Your task to perform on an android device: turn notification dots on Image 0: 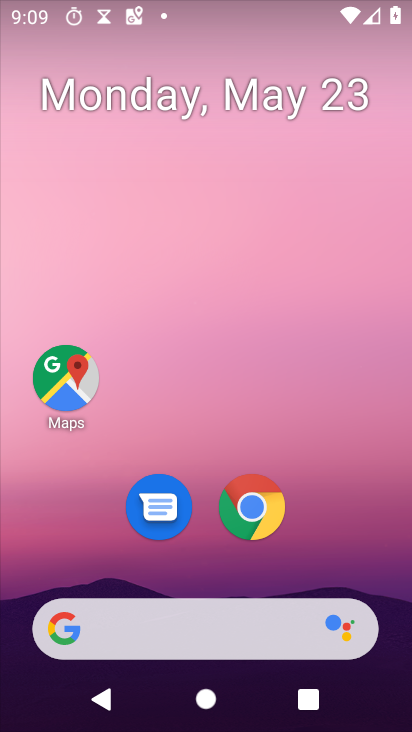
Step 0: drag from (366, 553) to (311, 3)
Your task to perform on an android device: turn notification dots on Image 1: 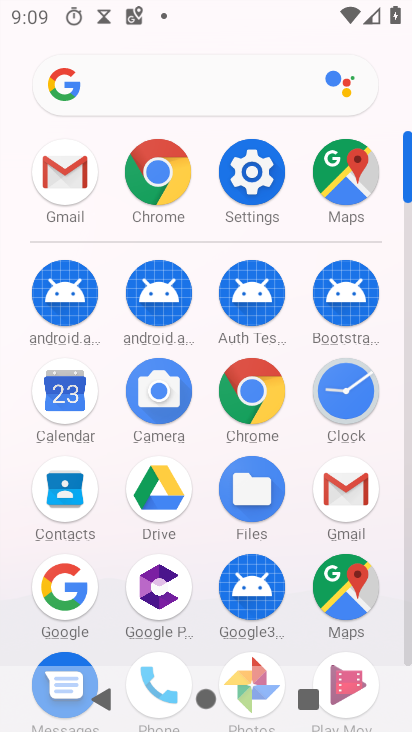
Step 1: click (259, 187)
Your task to perform on an android device: turn notification dots on Image 2: 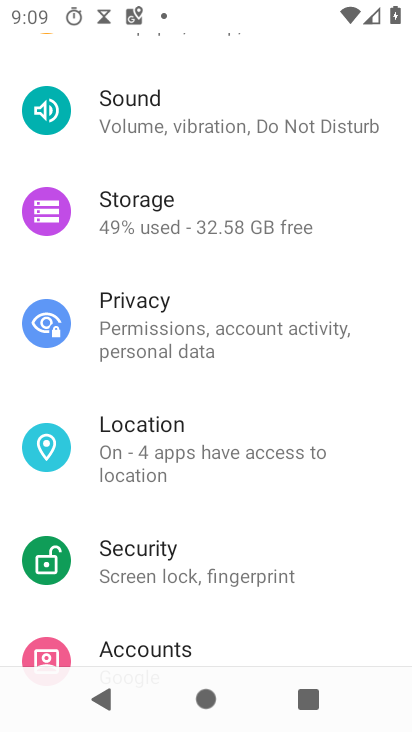
Step 2: drag from (193, 196) to (255, 586)
Your task to perform on an android device: turn notification dots on Image 3: 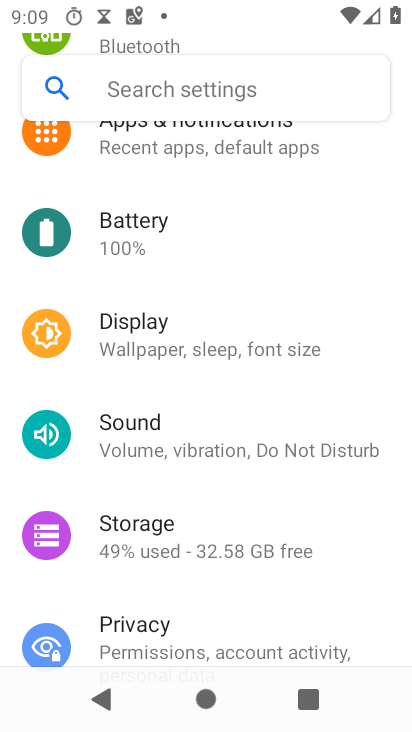
Step 3: drag from (217, 205) to (289, 615)
Your task to perform on an android device: turn notification dots on Image 4: 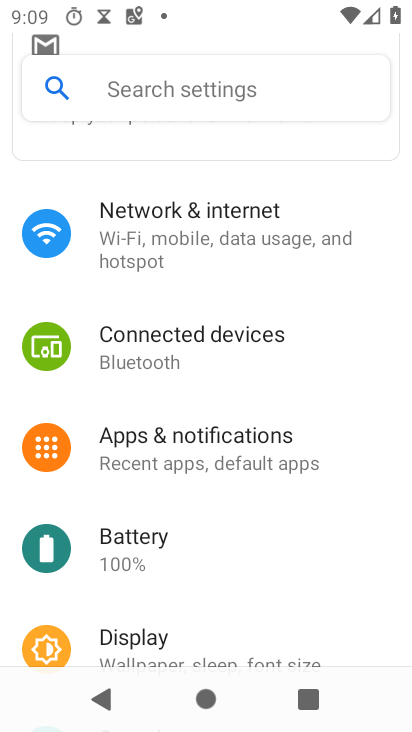
Step 4: click (226, 453)
Your task to perform on an android device: turn notification dots on Image 5: 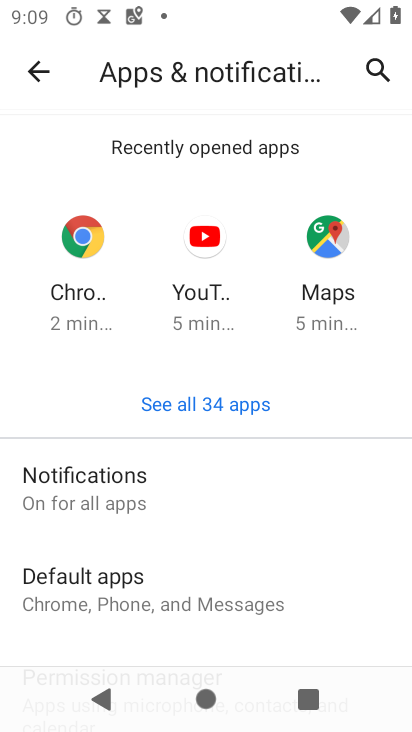
Step 5: click (87, 468)
Your task to perform on an android device: turn notification dots on Image 6: 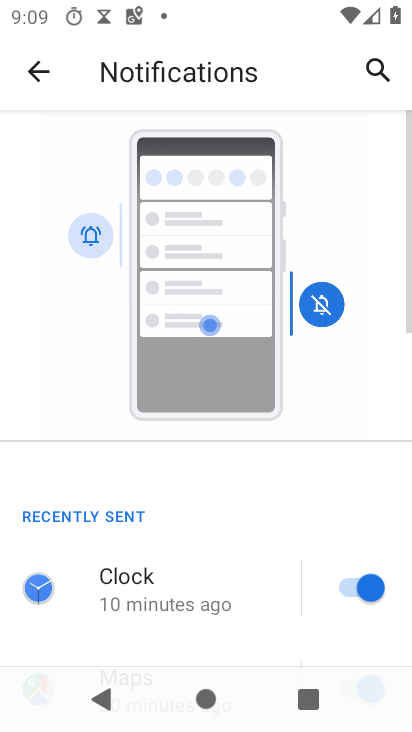
Step 6: drag from (148, 588) to (84, 132)
Your task to perform on an android device: turn notification dots on Image 7: 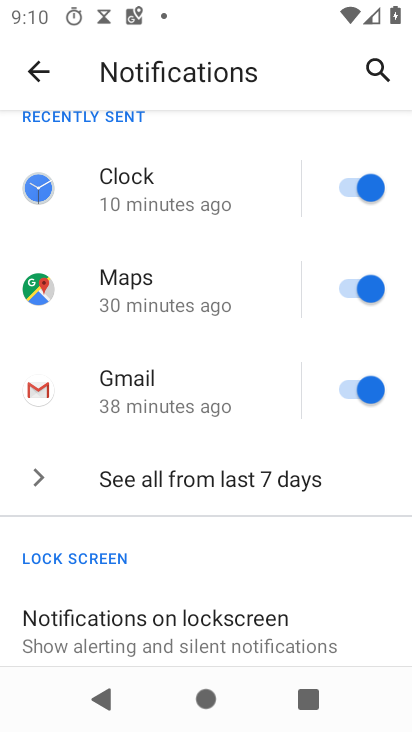
Step 7: drag from (247, 534) to (179, 140)
Your task to perform on an android device: turn notification dots on Image 8: 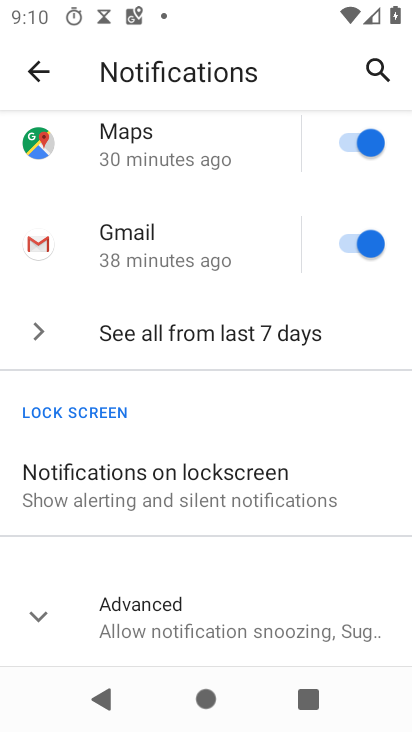
Step 8: click (179, 605)
Your task to perform on an android device: turn notification dots on Image 9: 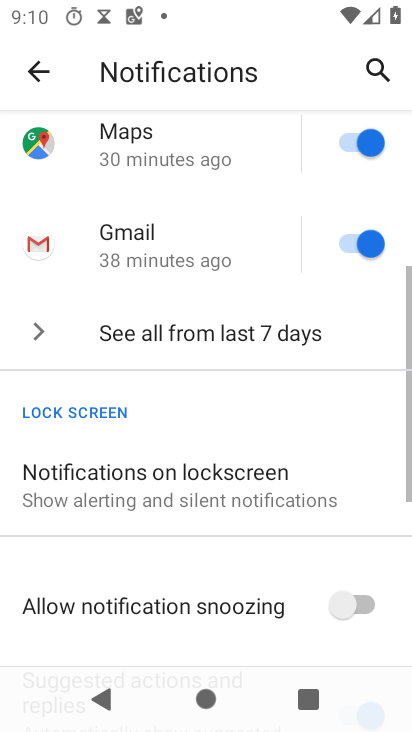
Step 9: task complete